Your task to perform on an android device: Open Yahoo.com Image 0: 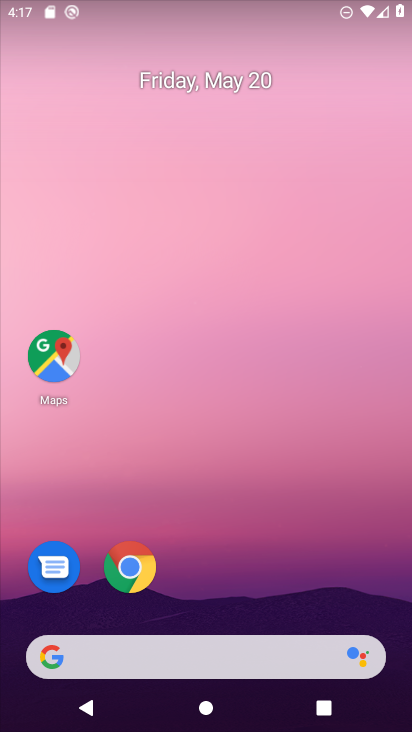
Step 0: click (129, 569)
Your task to perform on an android device: Open Yahoo.com Image 1: 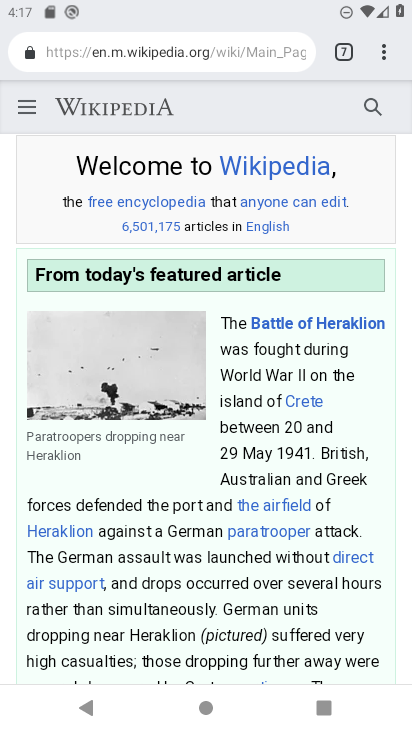
Step 1: click (383, 55)
Your task to perform on an android device: Open Yahoo.com Image 2: 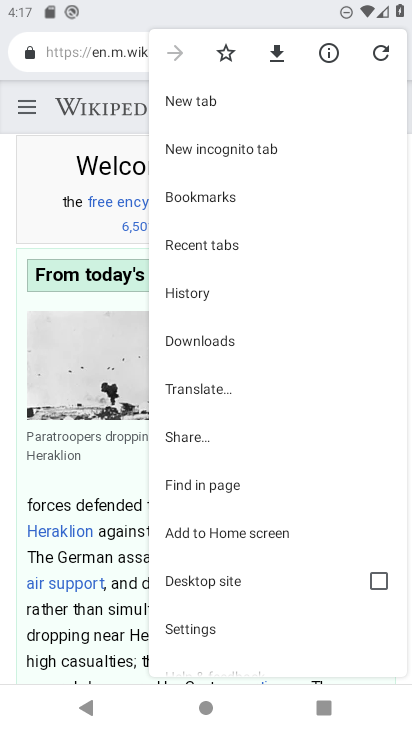
Step 2: click (202, 102)
Your task to perform on an android device: Open Yahoo.com Image 3: 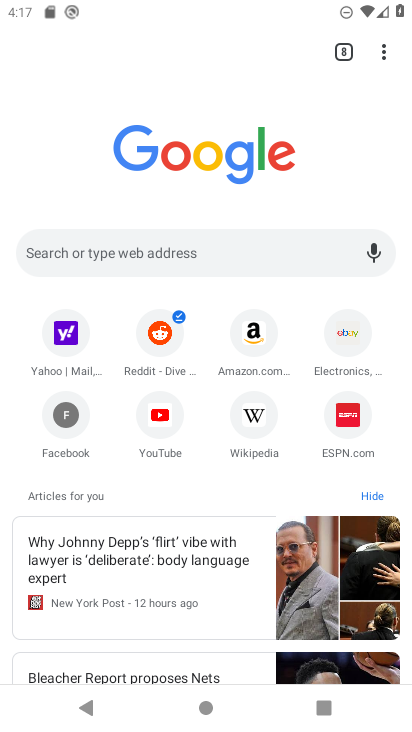
Step 3: click (66, 335)
Your task to perform on an android device: Open Yahoo.com Image 4: 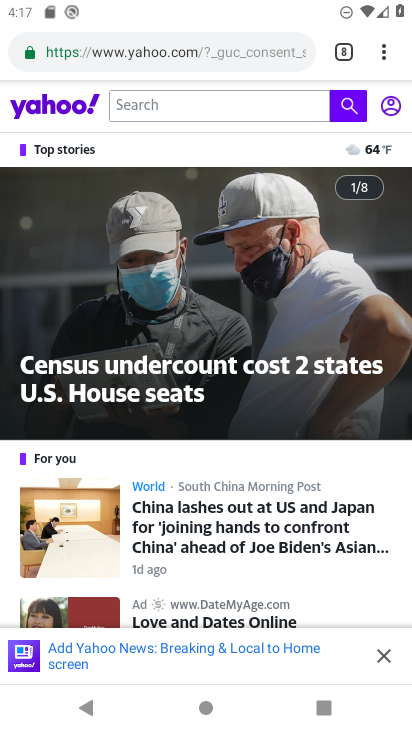
Step 4: task complete